Your task to perform on an android device: Open settings Image 0: 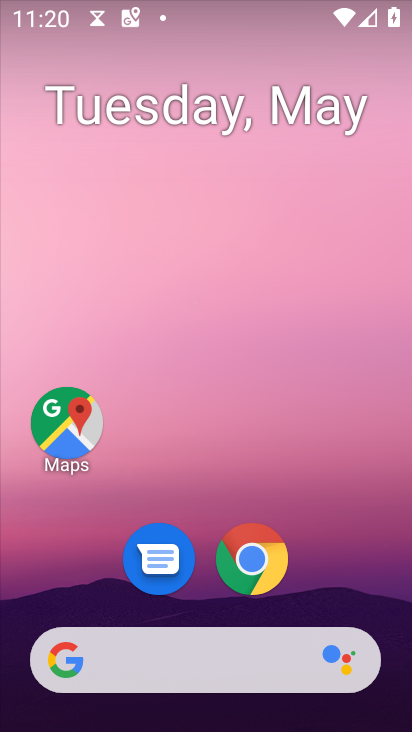
Step 0: drag from (318, 554) to (357, 9)
Your task to perform on an android device: Open settings Image 1: 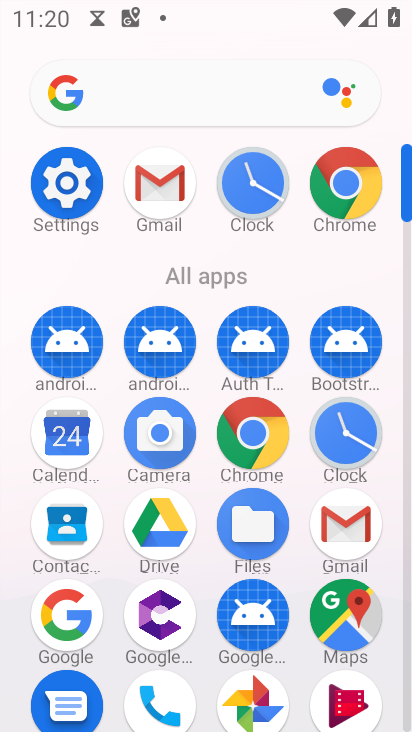
Step 1: click (49, 207)
Your task to perform on an android device: Open settings Image 2: 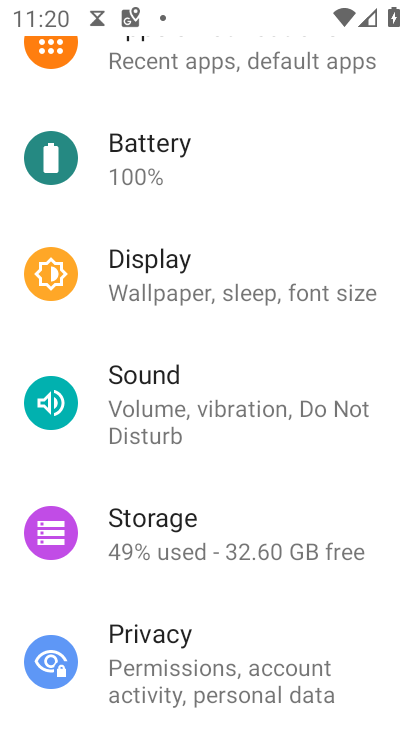
Step 2: task complete